Your task to perform on an android device: delete location history Image 0: 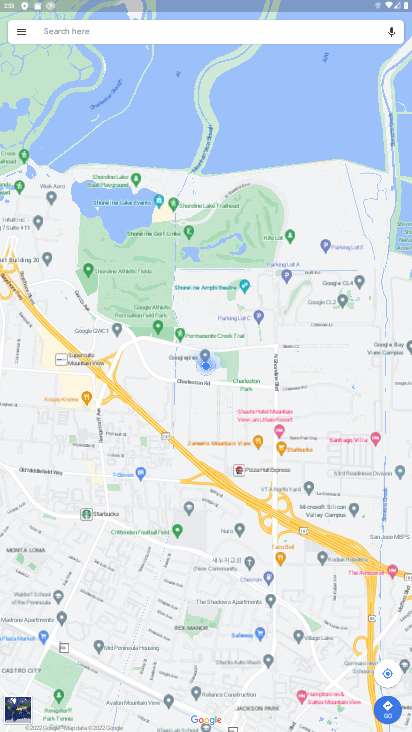
Step 0: press home button
Your task to perform on an android device: delete location history Image 1: 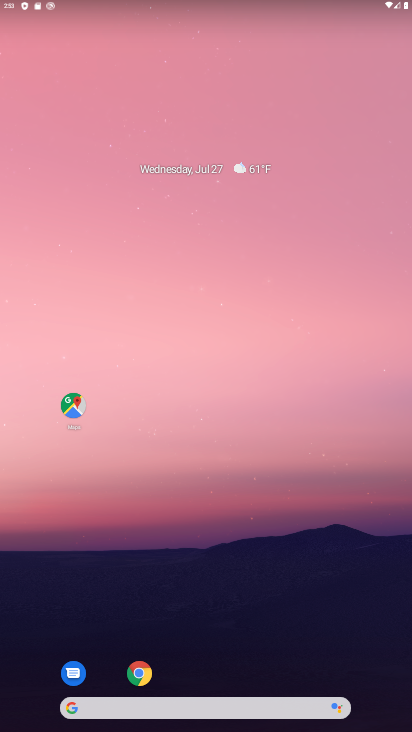
Step 1: click (383, 412)
Your task to perform on an android device: delete location history Image 2: 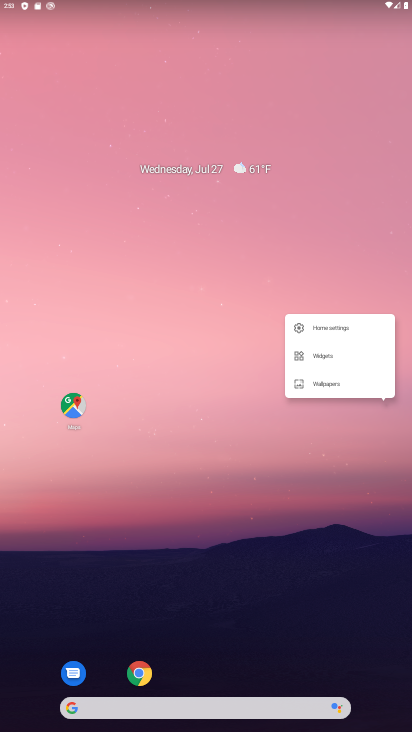
Step 2: drag from (306, 480) to (225, 87)
Your task to perform on an android device: delete location history Image 3: 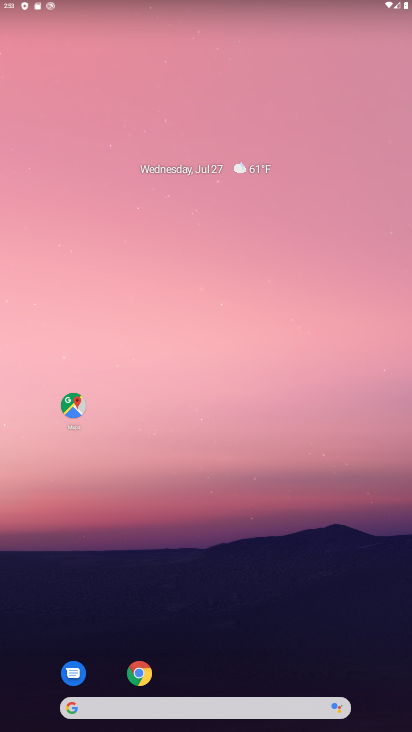
Step 3: drag from (313, 601) to (226, 159)
Your task to perform on an android device: delete location history Image 4: 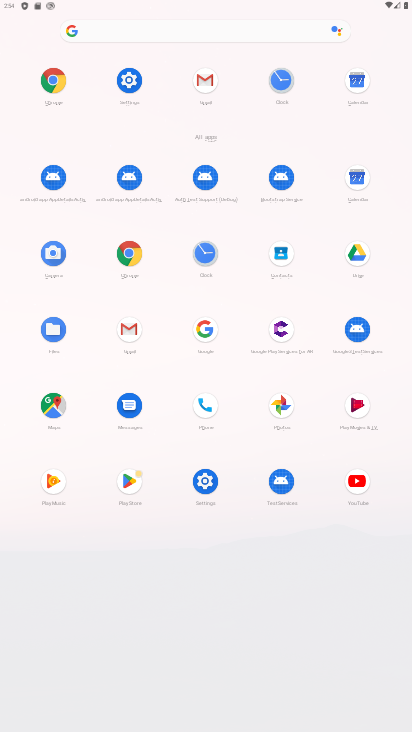
Step 4: click (198, 492)
Your task to perform on an android device: delete location history Image 5: 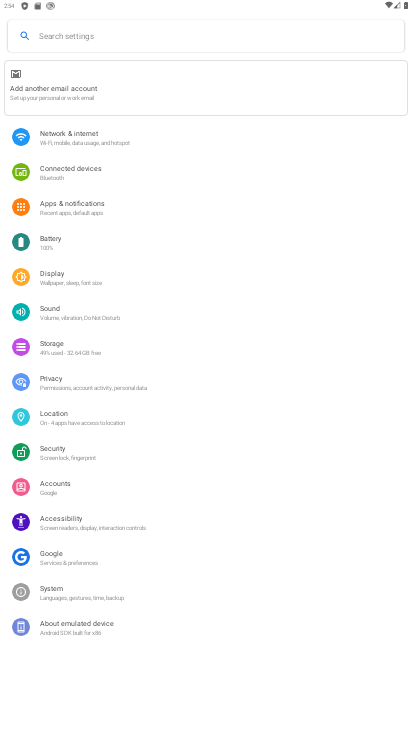
Step 5: click (105, 419)
Your task to perform on an android device: delete location history Image 6: 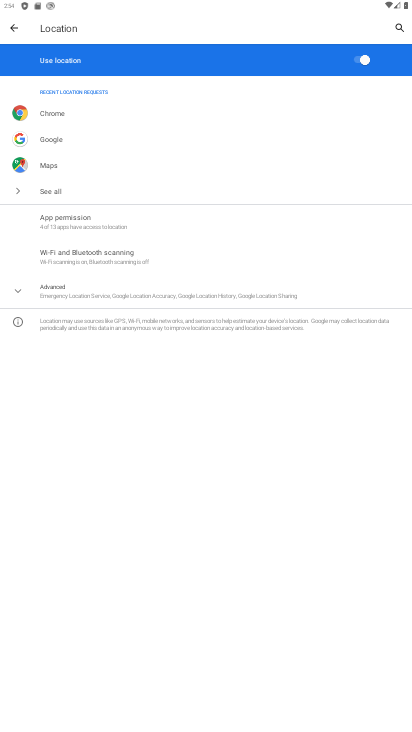
Step 6: click (87, 286)
Your task to perform on an android device: delete location history Image 7: 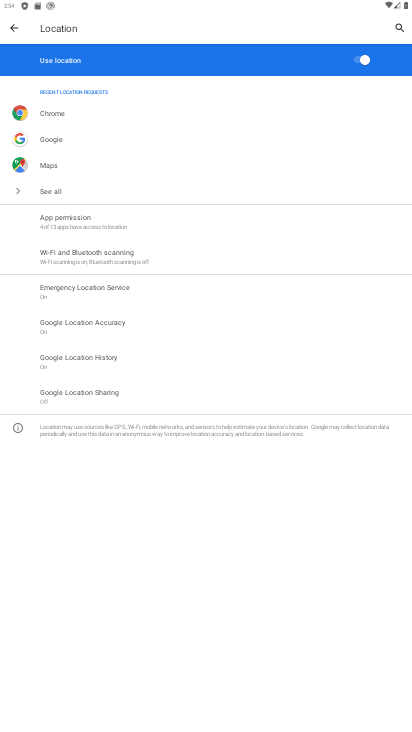
Step 7: click (120, 357)
Your task to perform on an android device: delete location history Image 8: 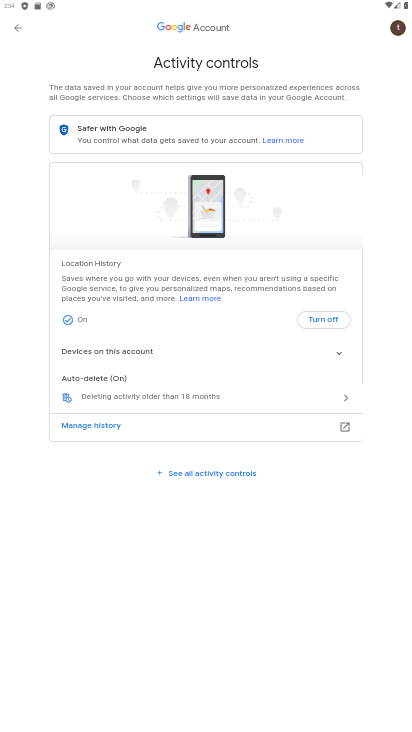
Step 8: click (101, 424)
Your task to perform on an android device: delete location history Image 9: 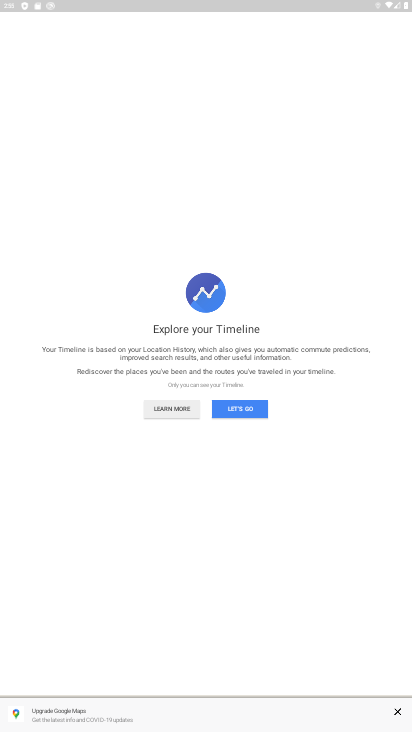
Step 9: click (246, 411)
Your task to perform on an android device: delete location history Image 10: 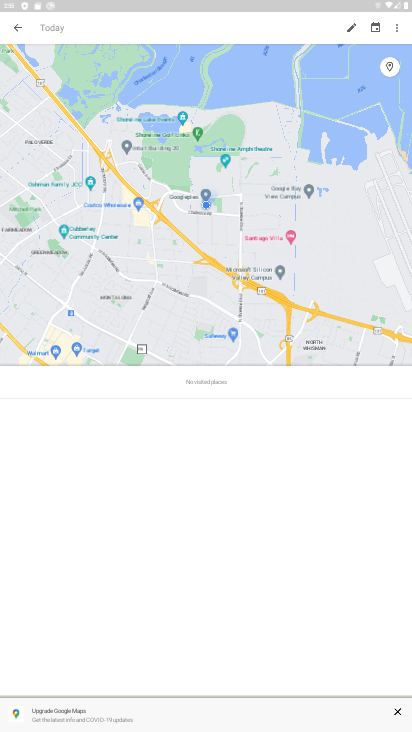
Step 10: click (398, 31)
Your task to perform on an android device: delete location history Image 11: 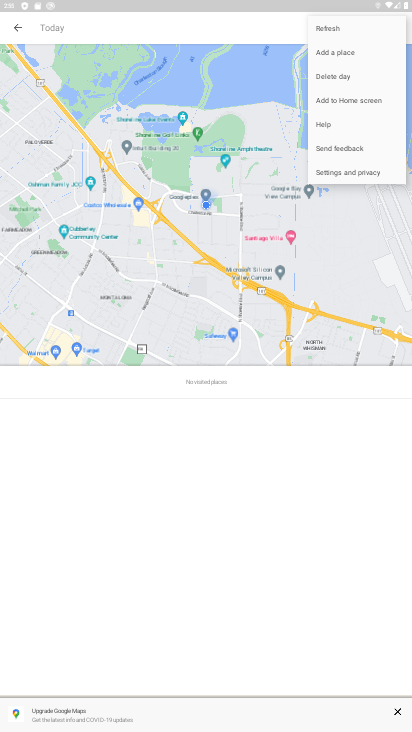
Step 11: click (339, 74)
Your task to perform on an android device: delete location history Image 12: 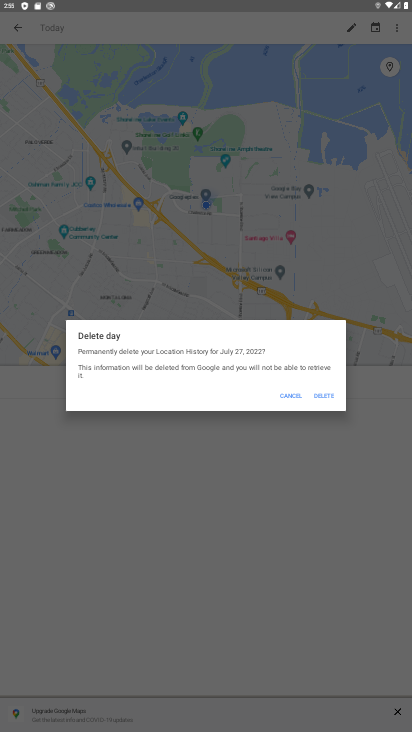
Step 12: click (317, 388)
Your task to perform on an android device: delete location history Image 13: 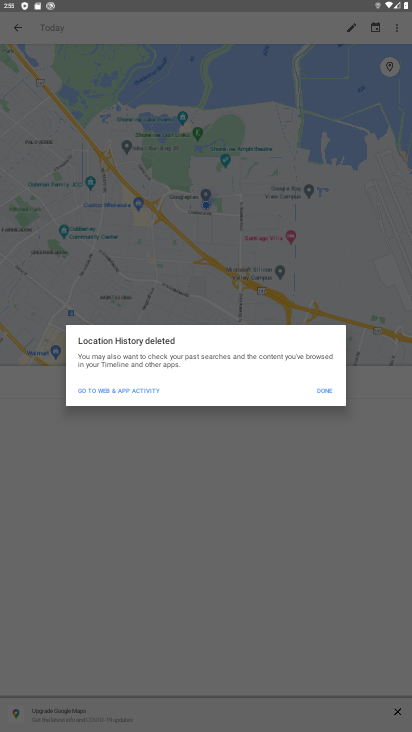
Step 13: click (324, 389)
Your task to perform on an android device: delete location history Image 14: 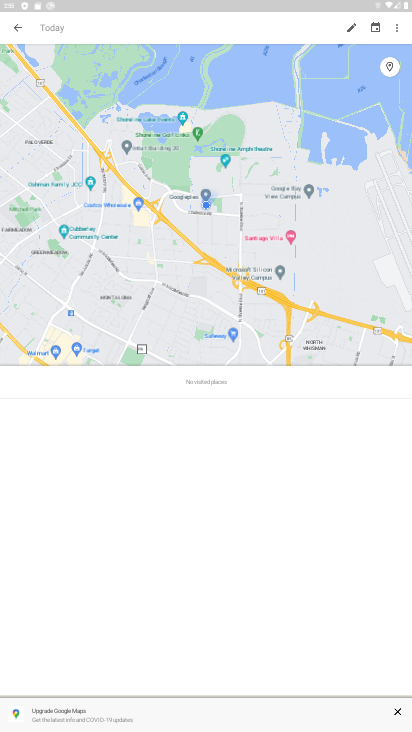
Step 14: task complete